Your task to perform on an android device: Do I have any events this weekend? Image 0: 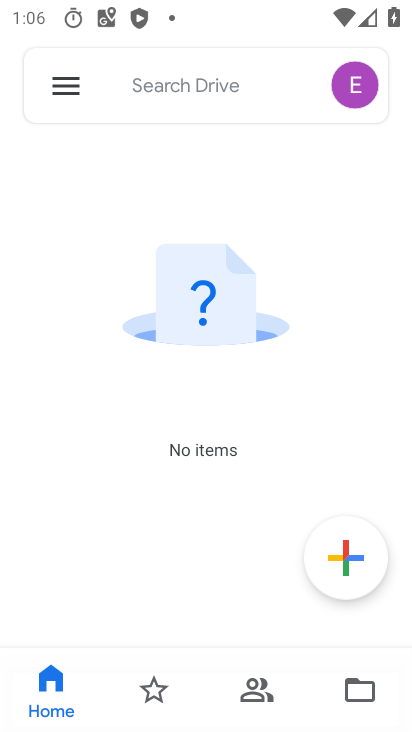
Step 0: press back button
Your task to perform on an android device: Do I have any events this weekend? Image 1: 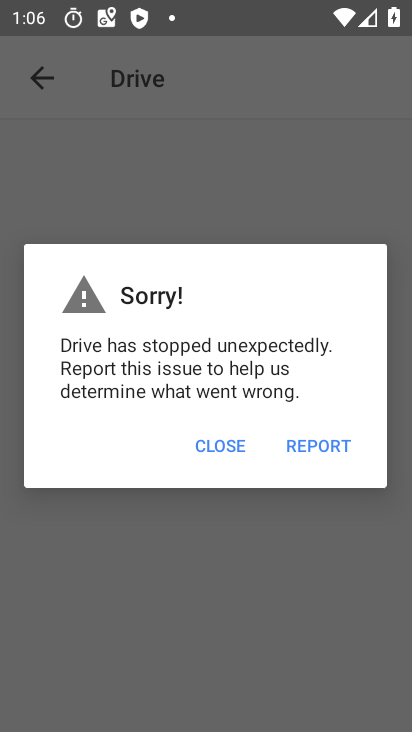
Step 1: press home button
Your task to perform on an android device: Do I have any events this weekend? Image 2: 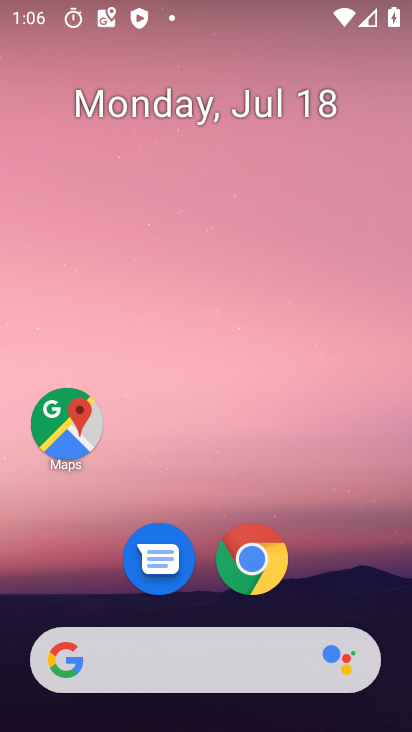
Step 2: drag from (115, 562) to (192, 8)
Your task to perform on an android device: Do I have any events this weekend? Image 3: 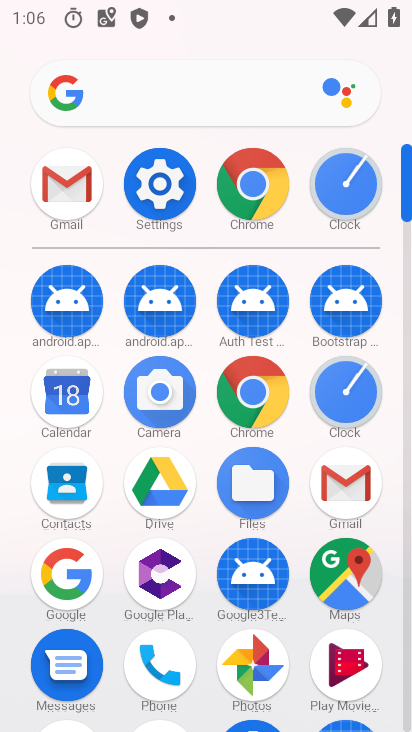
Step 3: click (64, 381)
Your task to perform on an android device: Do I have any events this weekend? Image 4: 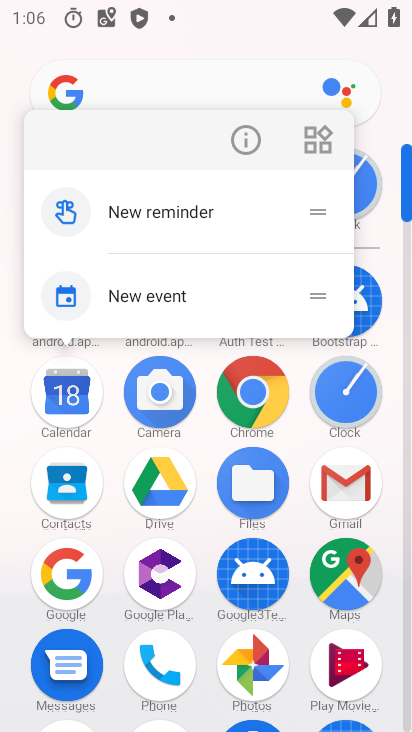
Step 4: click (76, 392)
Your task to perform on an android device: Do I have any events this weekend? Image 5: 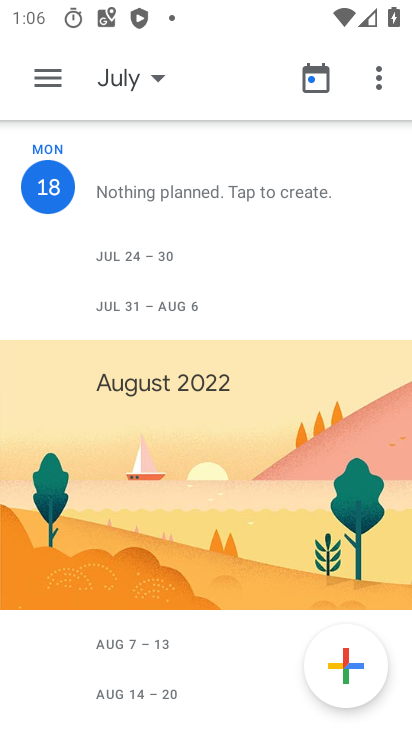
Step 5: task complete